Your task to perform on an android device: change notification settings in the gmail app Image 0: 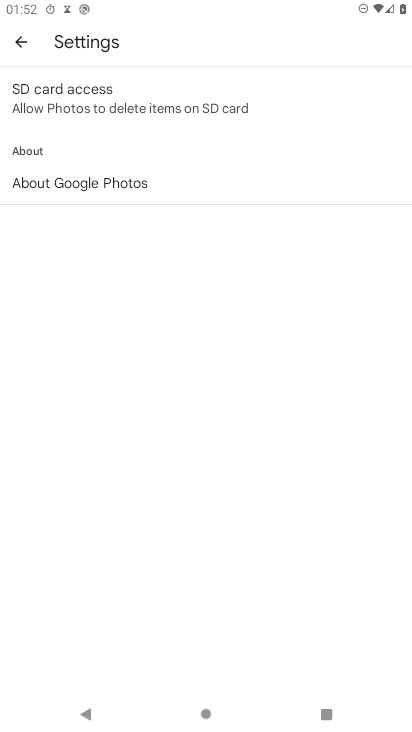
Step 0: press home button
Your task to perform on an android device: change notification settings in the gmail app Image 1: 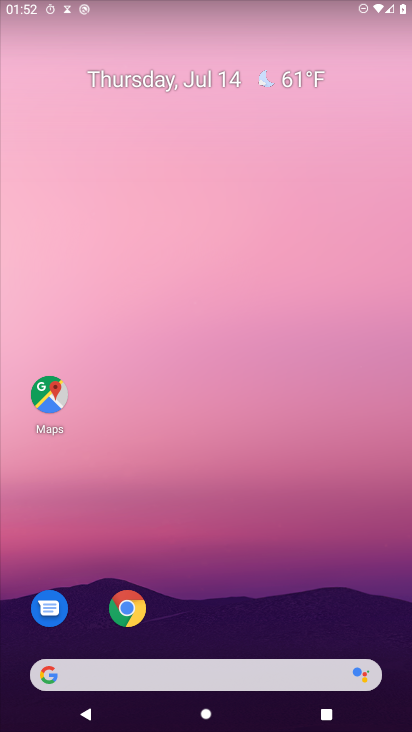
Step 1: drag from (223, 251) to (314, 5)
Your task to perform on an android device: change notification settings in the gmail app Image 2: 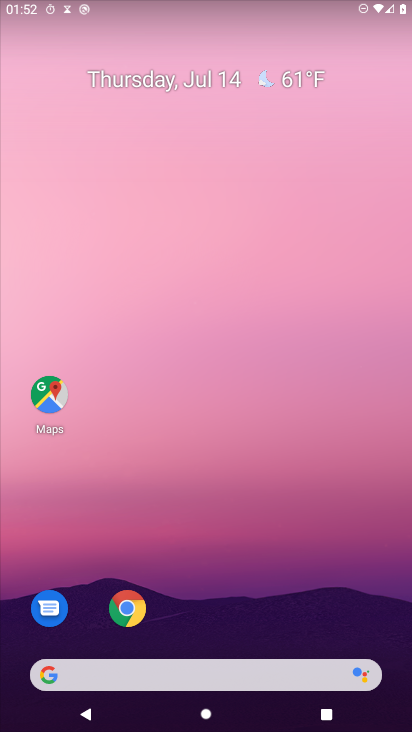
Step 2: drag from (237, 551) to (234, 42)
Your task to perform on an android device: change notification settings in the gmail app Image 3: 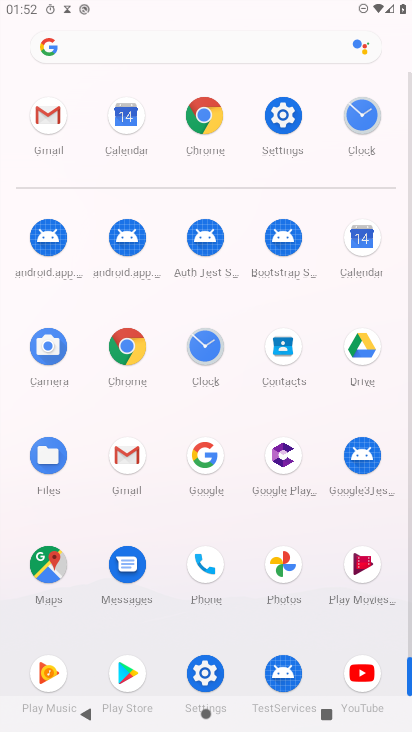
Step 3: click (52, 112)
Your task to perform on an android device: change notification settings in the gmail app Image 4: 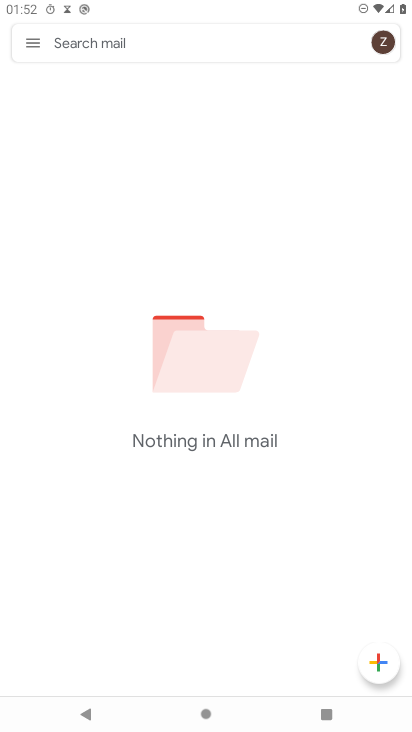
Step 4: click (32, 41)
Your task to perform on an android device: change notification settings in the gmail app Image 5: 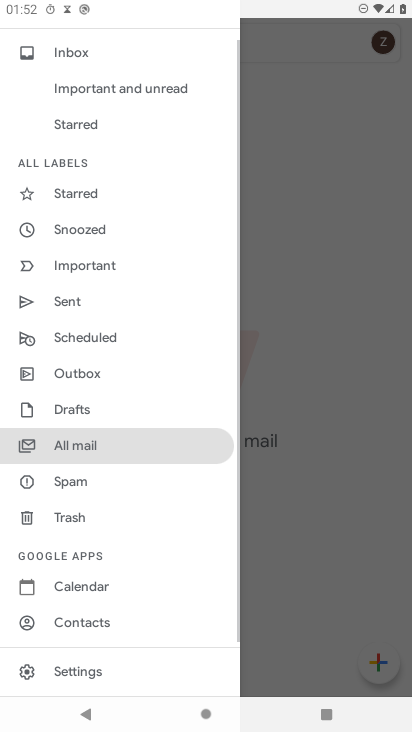
Step 5: click (79, 667)
Your task to perform on an android device: change notification settings in the gmail app Image 6: 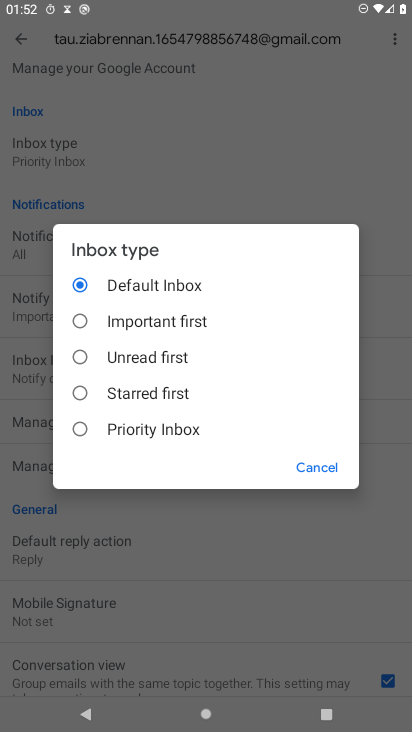
Step 6: click (224, 558)
Your task to perform on an android device: change notification settings in the gmail app Image 7: 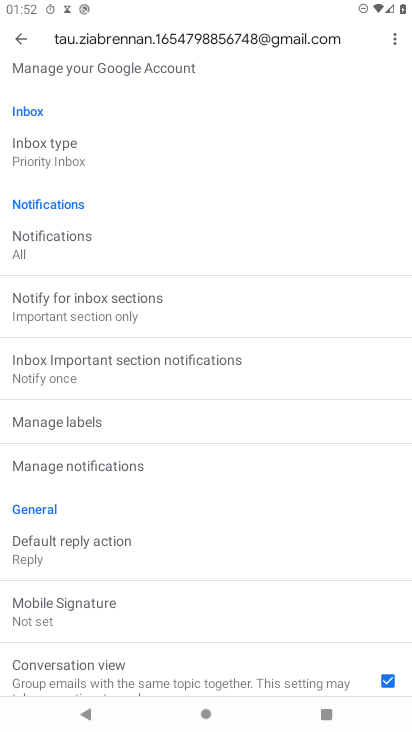
Step 7: click (53, 463)
Your task to perform on an android device: change notification settings in the gmail app Image 8: 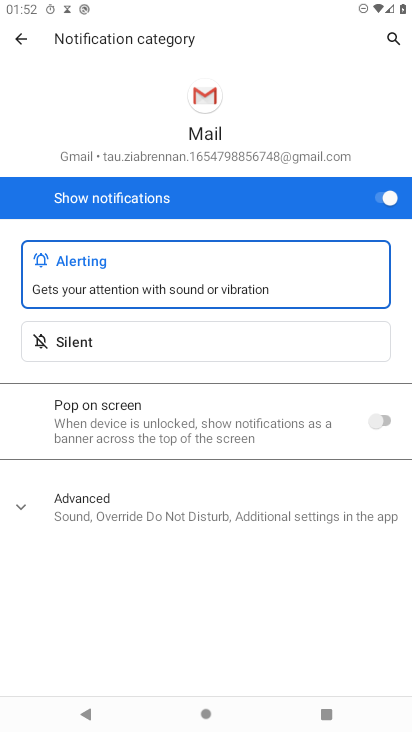
Step 8: click (394, 193)
Your task to perform on an android device: change notification settings in the gmail app Image 9: 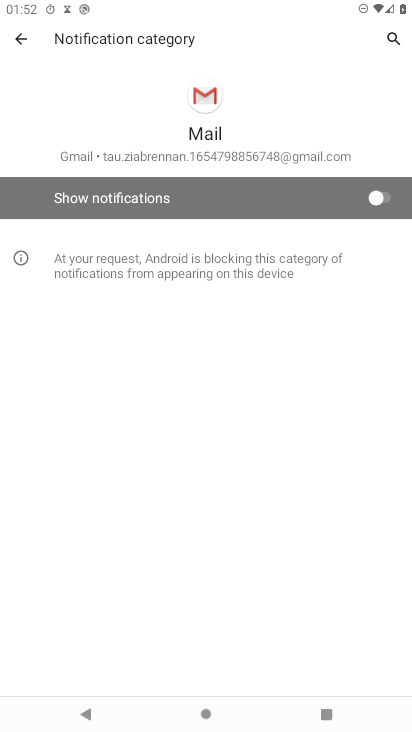
Step 9: task complete